Your task to perform on an android device: turn on showing notifications on the lock screen Image 0: 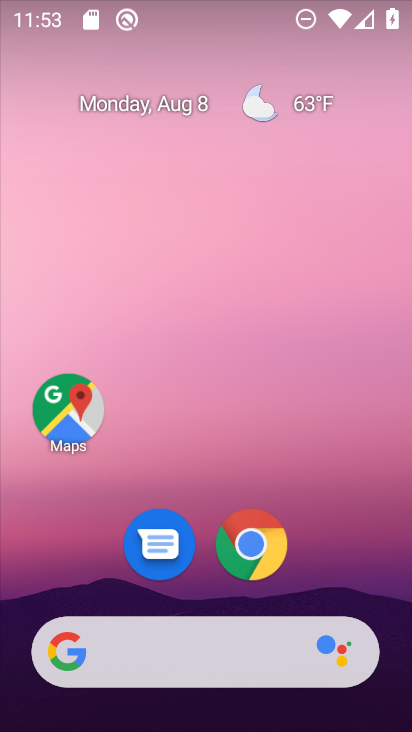
Step 0: drag from (202, 656) to (194, 156)
Your task to perform on an android device: turn on showing notifications on the lock screen Image 1: 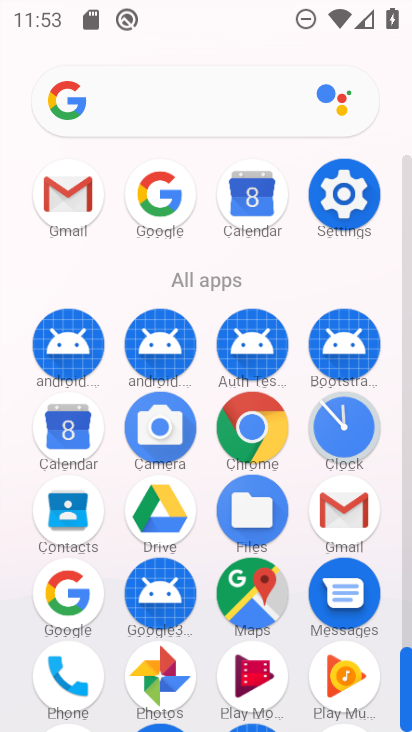
Step 1: click (339, 195)
Your task to perform on an android device: turn on showing notifications on the lock screen Image 2: 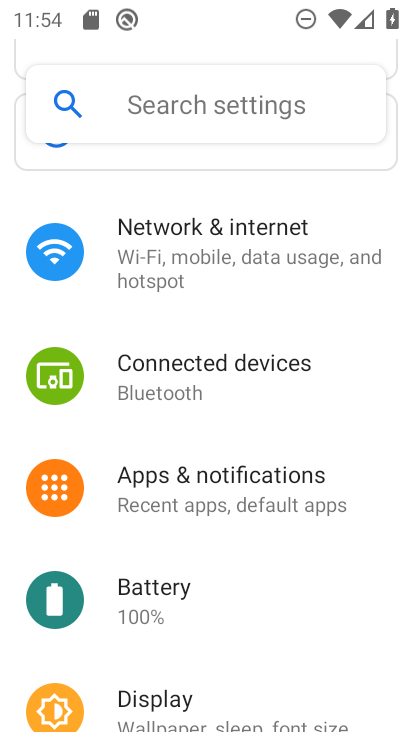
Step 2: click (235, 498)
Your task to perform on an android device: turn on showing notifications on the lock screen Image 3: 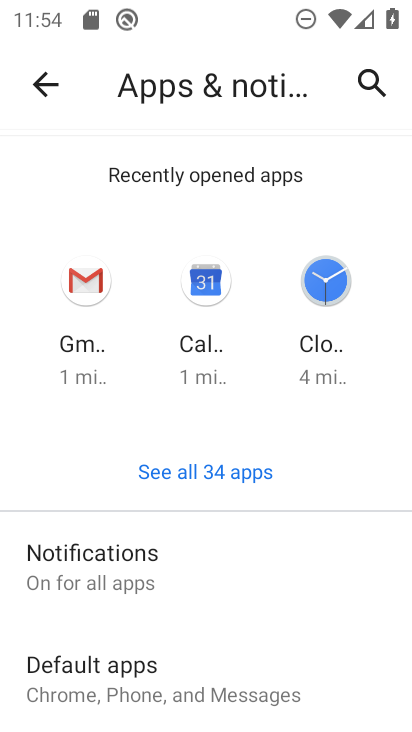
Step 3: click (117, 563)
Your task to perform on an android device: turn on showing notifications on the lock screen Image 4: 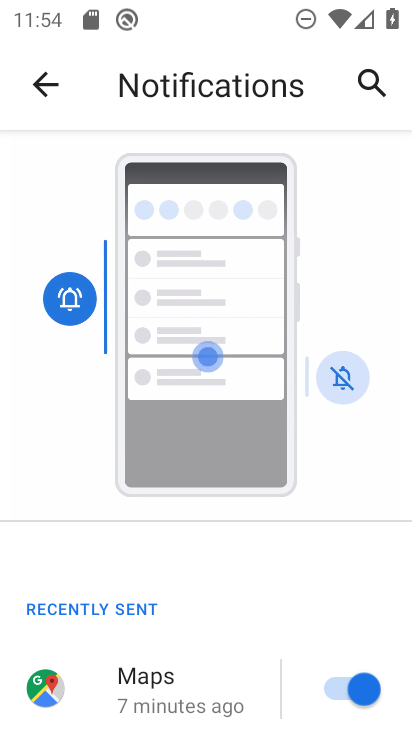
Step 4: drag from (160, 641) to (250, 401)
Your task to perform on an android device: turn on showing notifications on the lock screen Image 5: 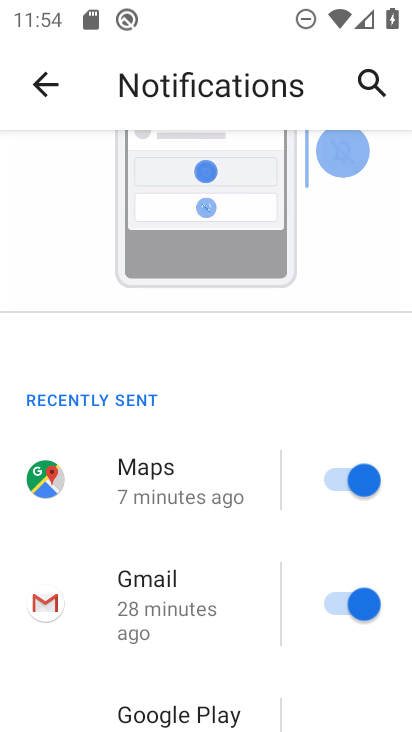
Step 5: drag from (118, 651) to (213, 326)
Your task to perform on an android device: turn on showing notifications on the lock screen Image 6: 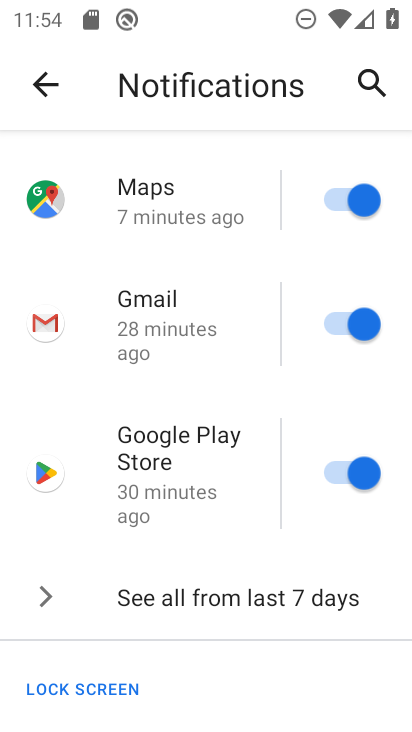
Step 6: drag from (192, 712) to (286, 546)
Your task to perform on an android device: turn on showing notifications on the lock screen Image 7: 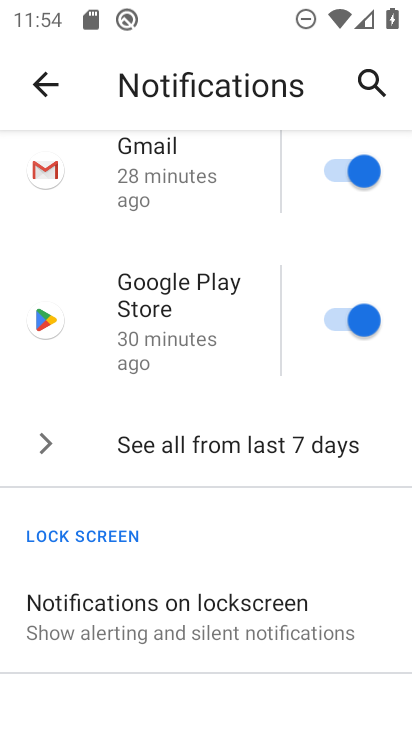
Step 7: drag from (208, 683) to (274, 568)
Your task to perform on an android device: turn on showing notifications on the lock screen Image 8: 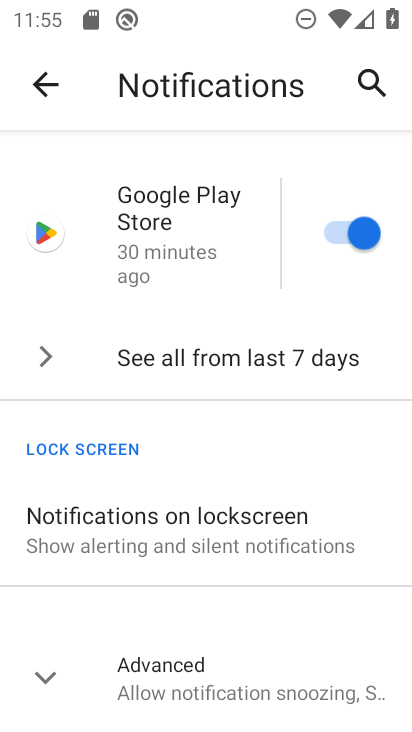
Step 8: click (195, 547)
Your task to perform on an android device: turn on showing notifications on the lock screen Image 9: 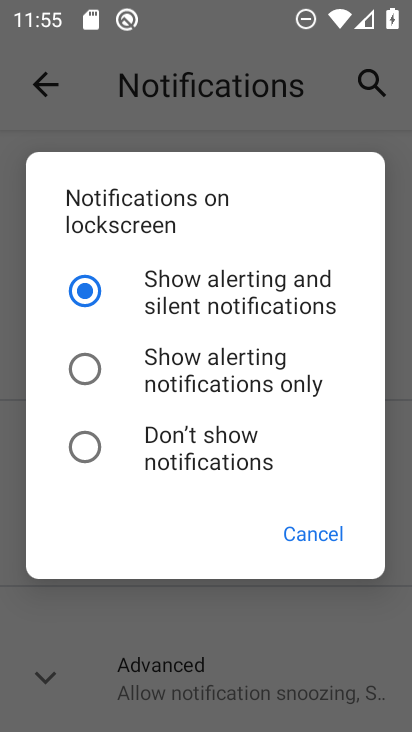
Step 9: click (83, 290)
Your task to perform on an android device: turn on showing notifications on the lock screen Image 10: 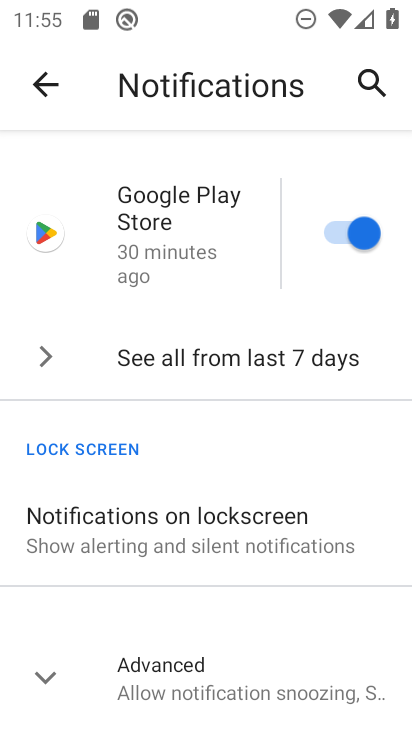
Step 10: task complete